Your task to perform on an android device: allow notifications from all sites in the chrome app Image 0: 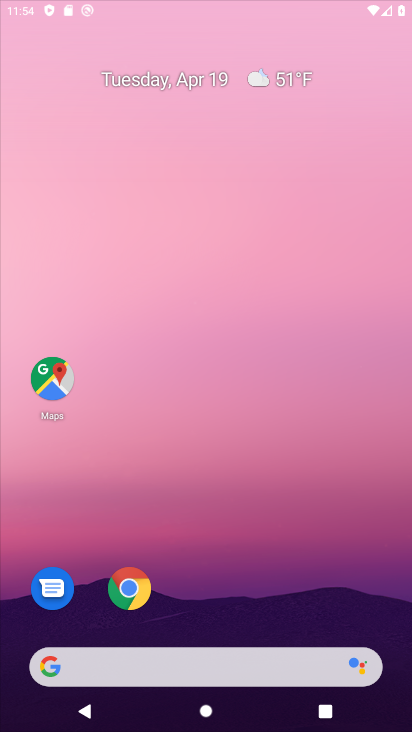
Step 0: drag from (202, 611) to (227, 87)
Your task to perform on an android device: allow notifications from all sites in the chrome app Image 1: 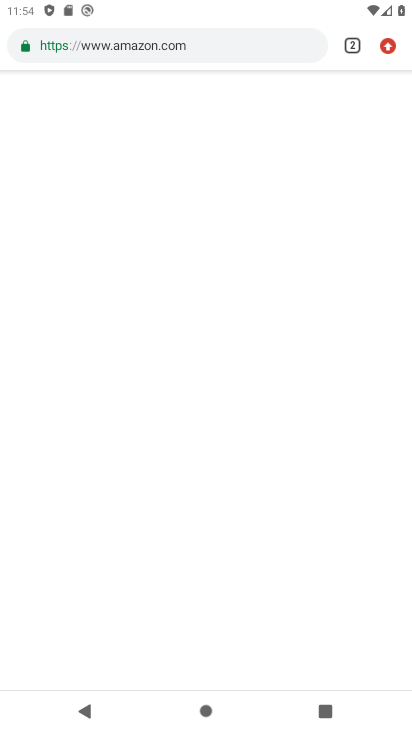
Step 1: press home button
Your task to perform on an android device: allow notifications from all sites in the chrome app Image 2: 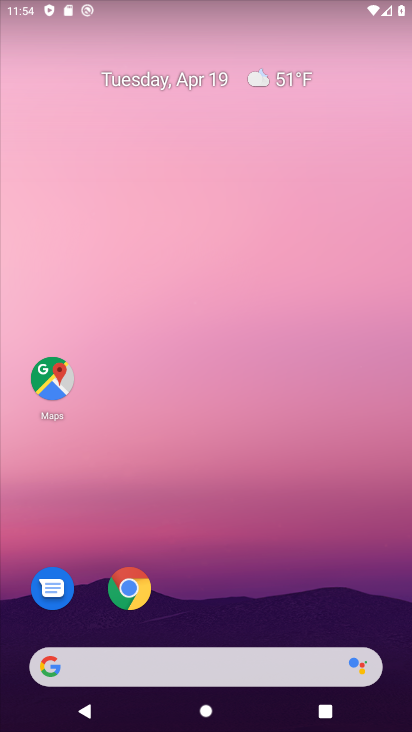
Step 2: click (130, 586)
Your task to perform on an android device: allow notifications from all sites in the chrome app Image 3: 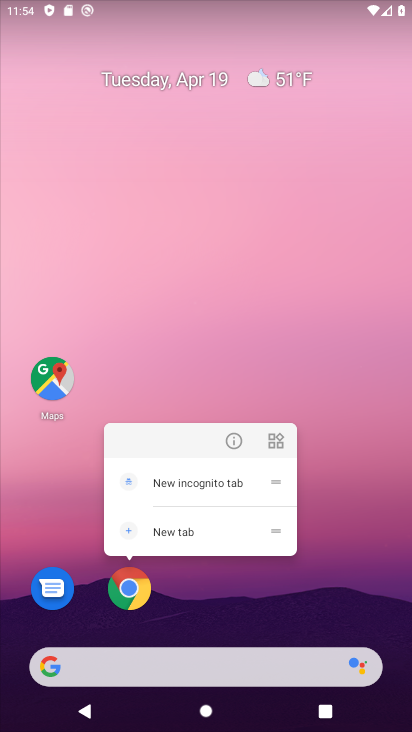
Step 3: click (130, 589)
Your task to perform on an android device: allow notifications from all sites in the chrome app Image 4: 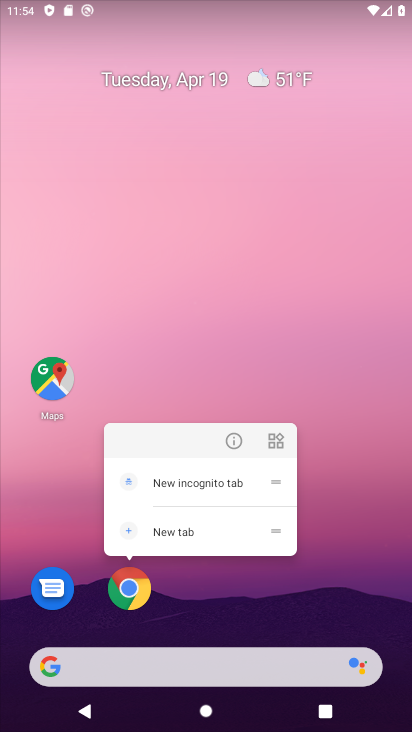
Step 4: click (127, 590)
Your task to perform on an android device: allow notifications from all sites in the chrome app Image 5: 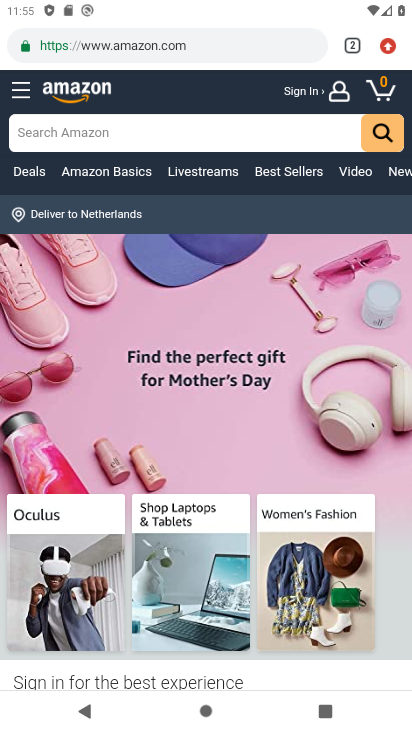
Step 5: click (388, 43)
Your task to perform on an android device: allow notifications from all sites in the chrome app Image 6: 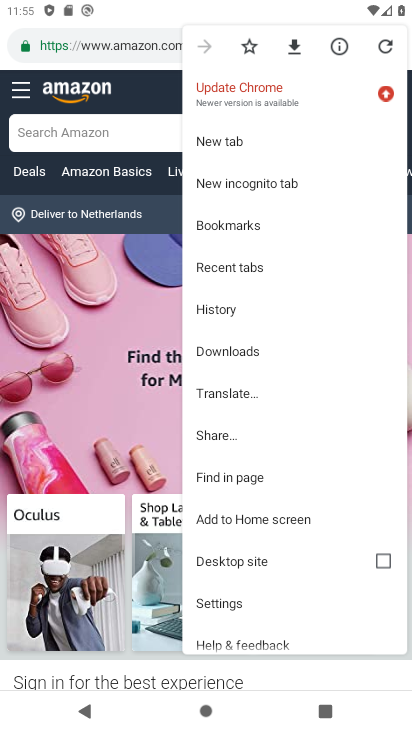
Step 6: click (241, 600)
Your task to perform on an android device: allow notifications from all sites in the chrome app Image 7: 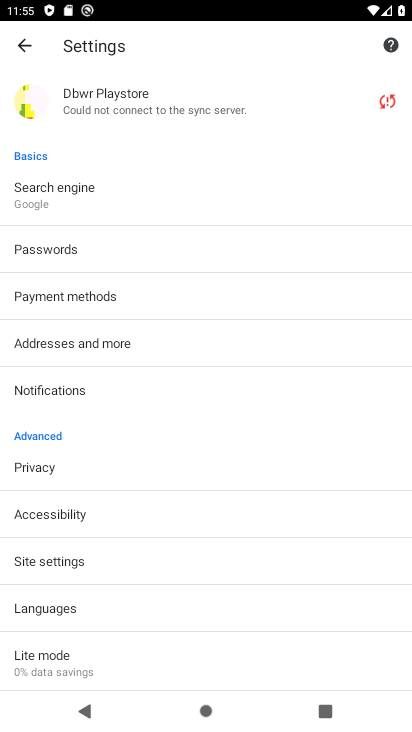
Step 7: click (104, 560)
Your task to perform on an android device: allow notifications from all sites in the chrome app Image 8: 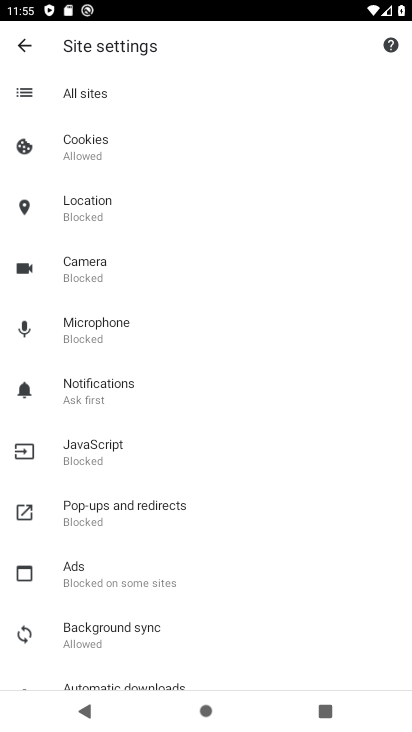
Step 8: click (112, 93)
Your task to perform on an android device: allow notifications from all sites in the chrome app Image 9: 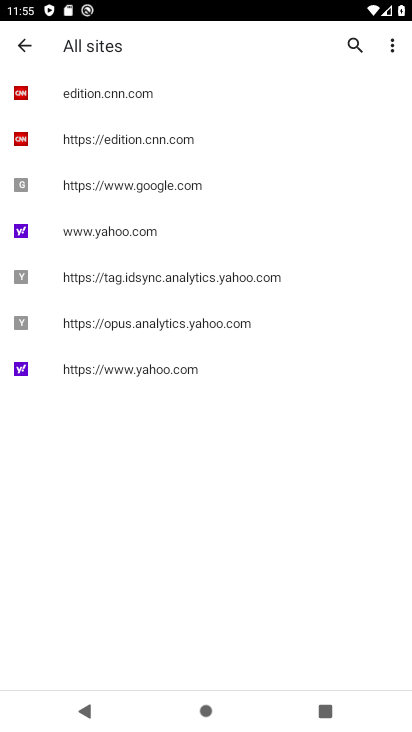
Step 9: click (83, 93)
Your task to perform on an android device: allow notifications from all sites in the chrome app Image 10: 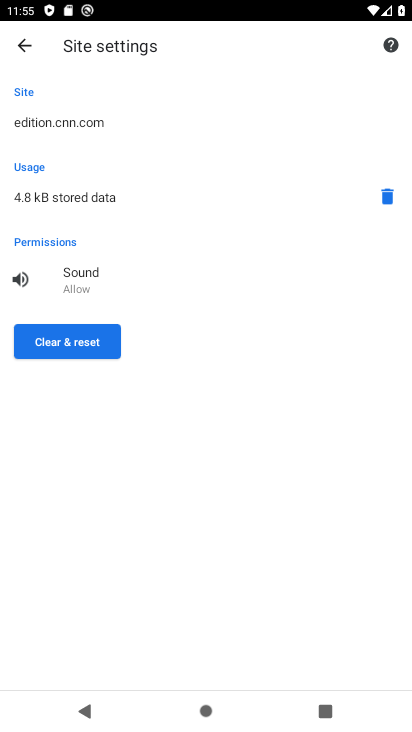
Step 10: click (26, 48)
Your task to perform on an android device: allow notifications from all sites in the chrome app Image 11: 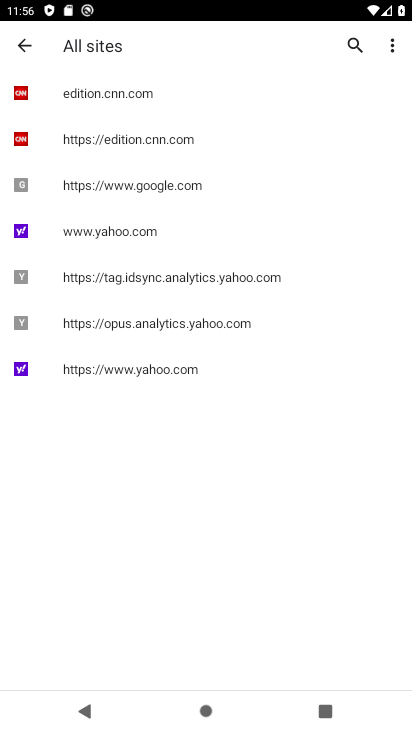
Step 11: click (81, 139)
Your task to perform on an android device: allow notifications from all sites in the chrome app Image 12: 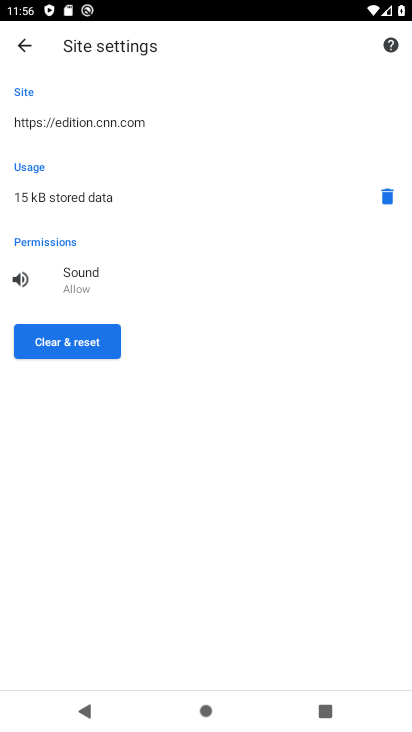
Step 12: click (15, 49)
Your task to perform on an android device: allow notifications from all sites in the chrome app Image 13: 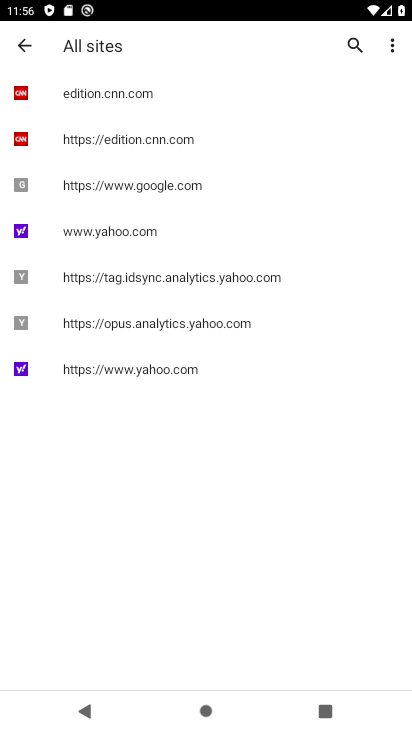
Step 13: click (69, 225)
Your task to perform on an android device: allow notifications from all sites in the chrome app Image 14: 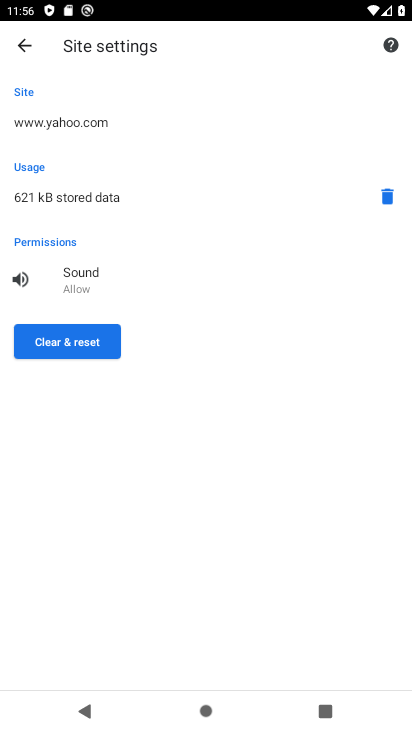
Step 14: click (31, 45)
Your task to perform on an android device: allow notifications from all sites in the chrome app Image 15: 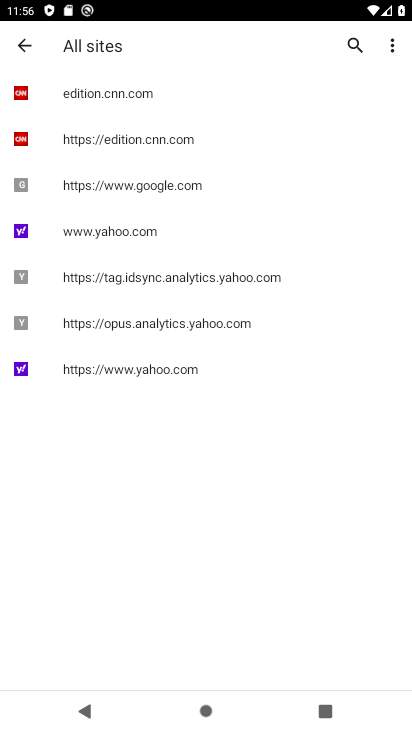
Step 15: click (78, 368)
Your task to perform on an android device: allow notifications from all sites in the chrome app Image 16: 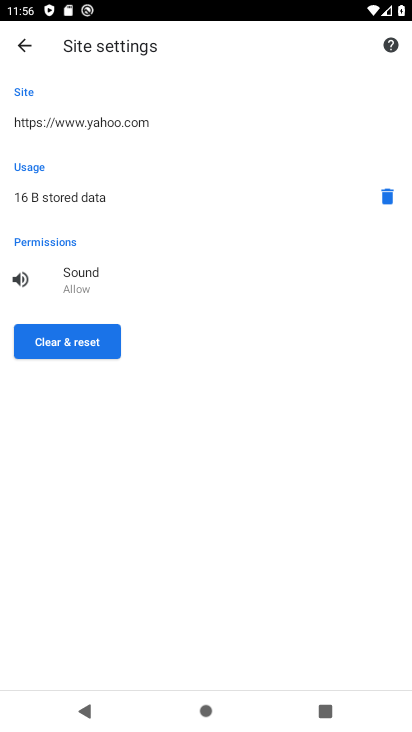
Step 16: task complete